Your task to perform on an android device: open sync settings in chrome Image 0: 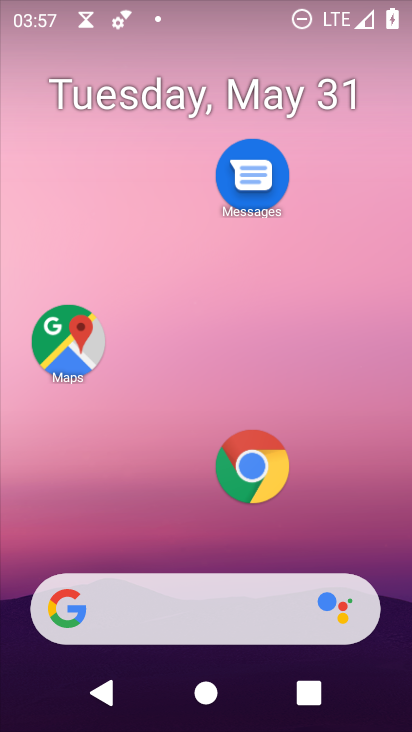
Step 0: click (252, 472)
Your task to perform on an android device: open sync settings in chrome Image 1: 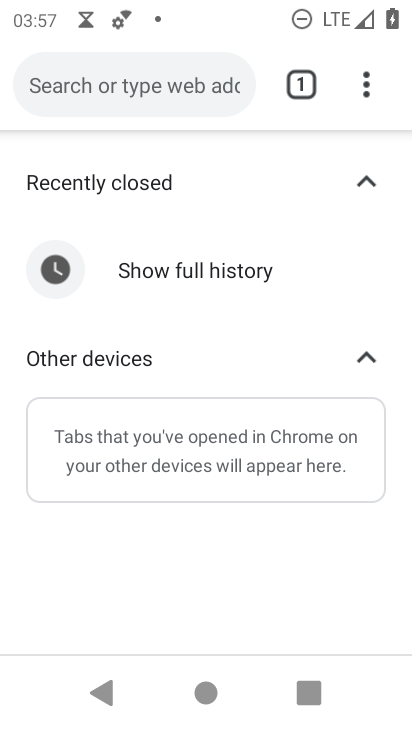
Step 1: click (361, 80)
Your task to perform on an android device: open sync settings in chrome Image 2: 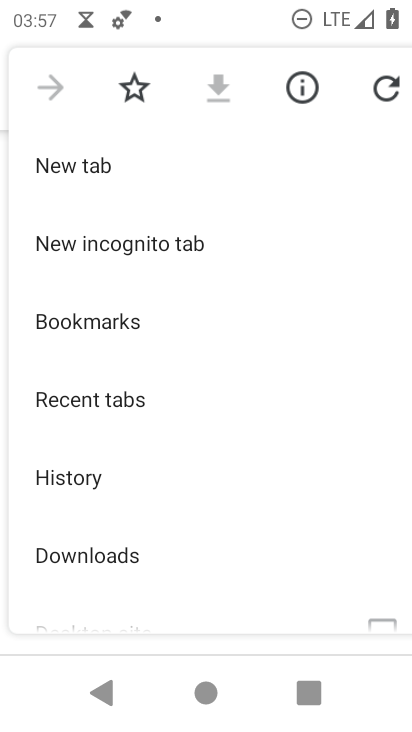
Step 2: drag from (130, 523) to (175, 40)
Your task to perform on an android device: open sync settings in chrome Image 3: 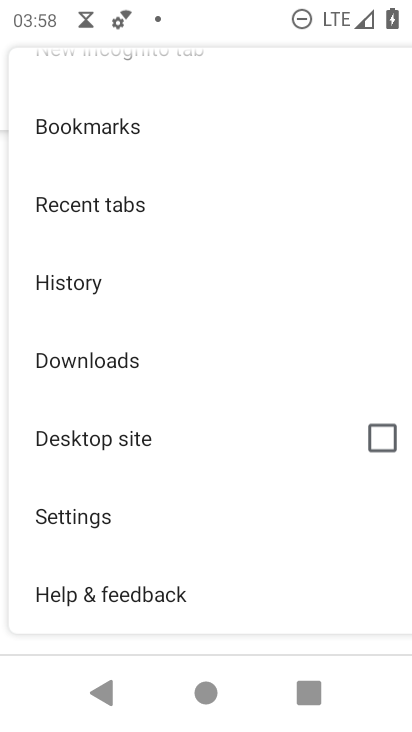
Step 3: click (98, 522)
Your task to perform on an android device: open sync settings in chrome Image 4: 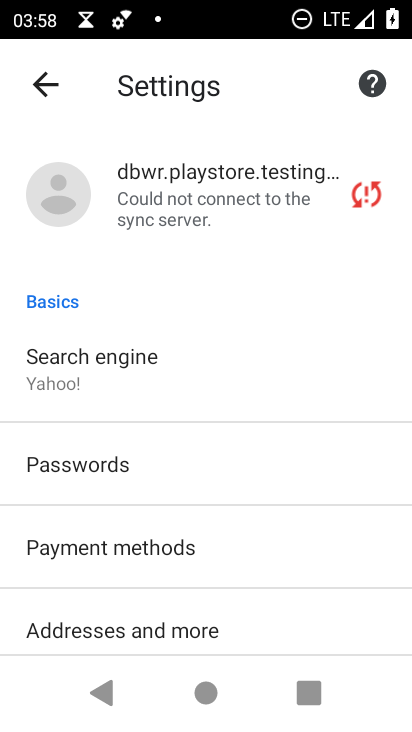
Step 4: click (197, 211)
Your task to perform on an android device: open sync settings in chrome Image 5: 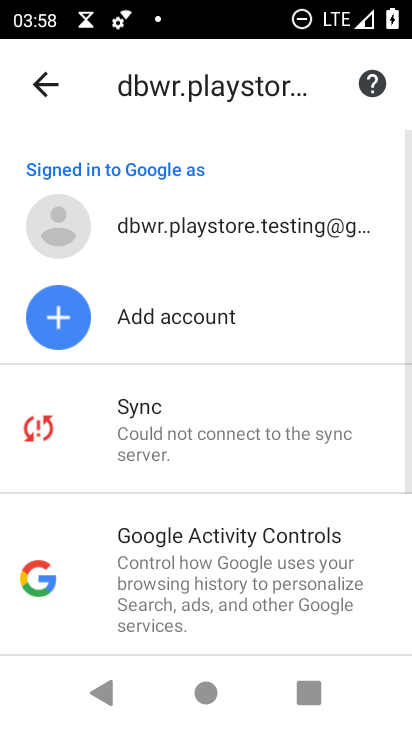
Step 5: task complete